Your task to perform on an android device: toggle pop-ups in chrome Image 0: 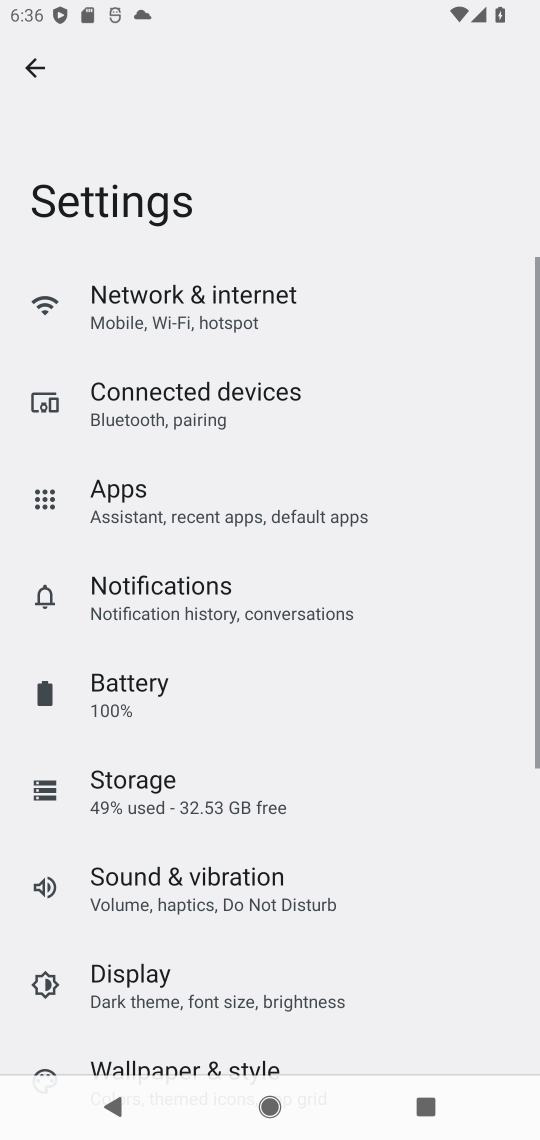
Step 0: press home button
Your task to perform on an android device: toggle pop-ups in chrome Image 1: 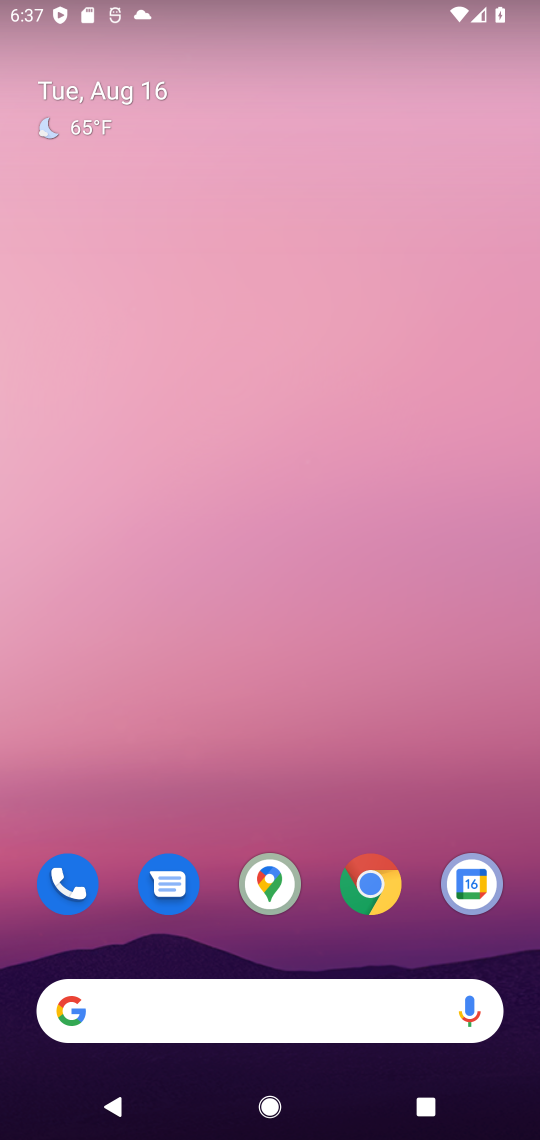
Step 1: click (364, 890)
Your task to perform on an android device: toggle pop-ups in chrome Image 2: 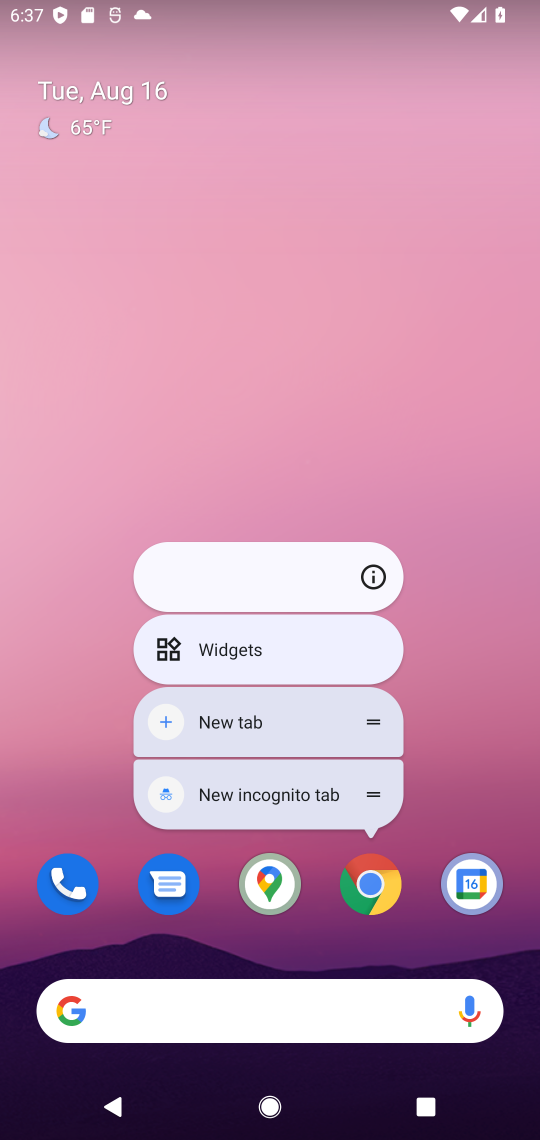
Step 2: click (363, 899)
Your task to perform on an android device: toggle pop-ups in chrome Image 3: 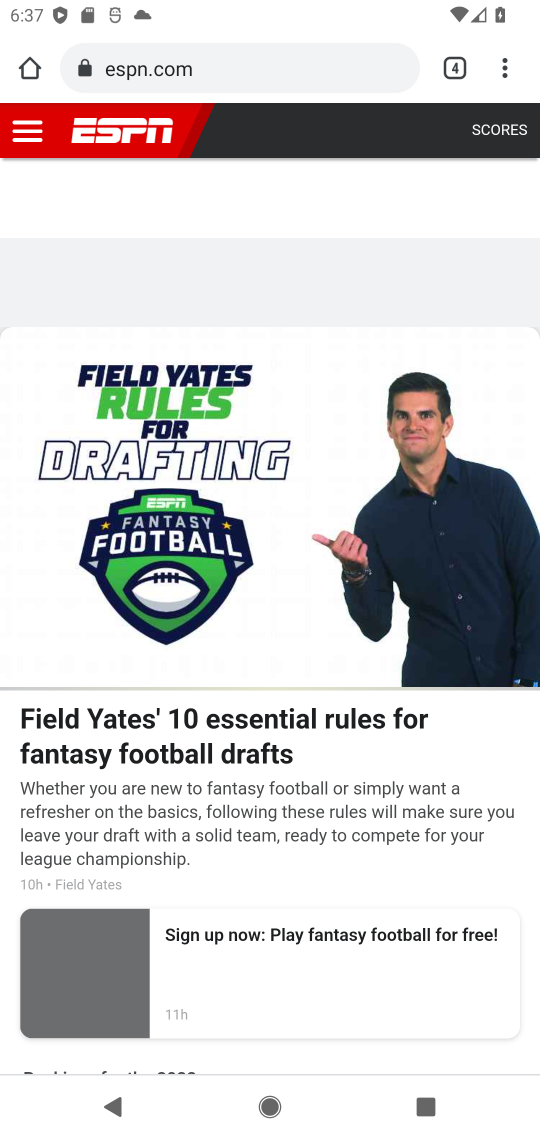
Step 3: drag from (504, 61) to (333, 828)
Your task to perform on an android device: toggle pop-ups in chrome Image 4: 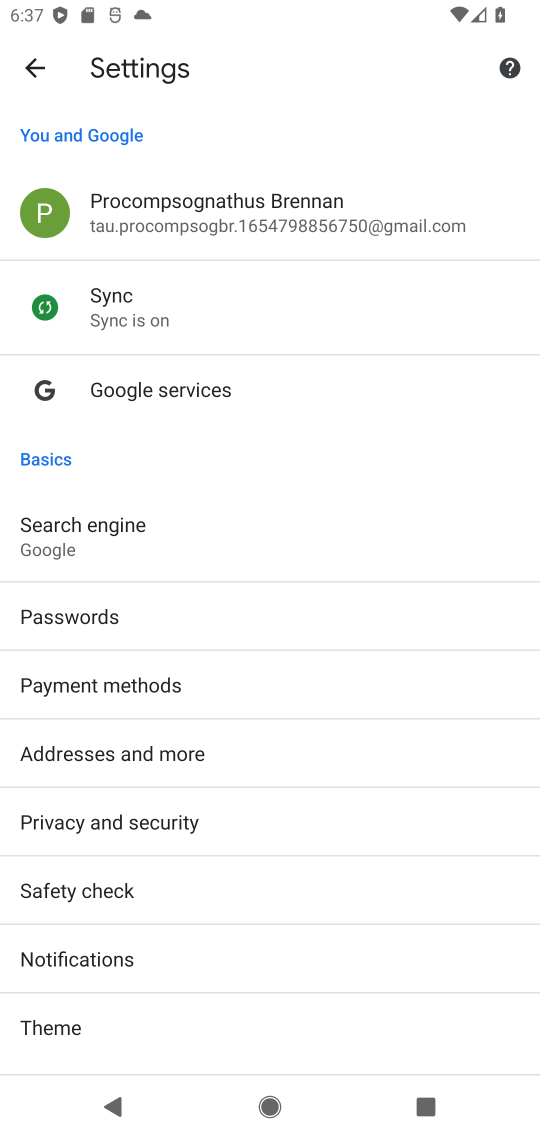
Step 4: drag from (307, 1011) to (315, 204)
Your task to perform on an android device: toggle pop-ups in chrome Image 5: 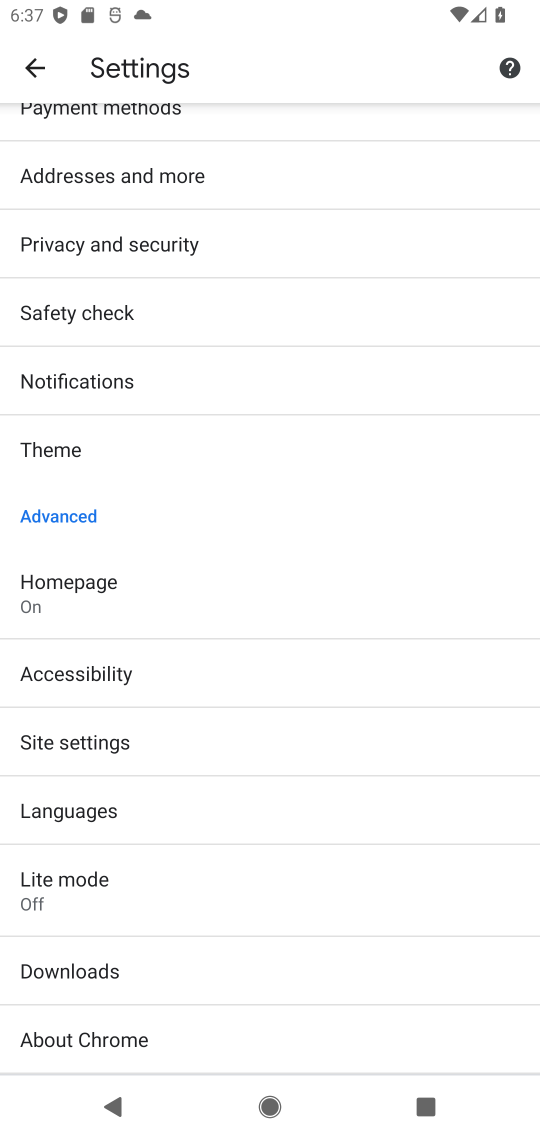
Step 5: click (55, 736)
Your task to perform on an android device: toggle pop-ups in chrome Image 6: 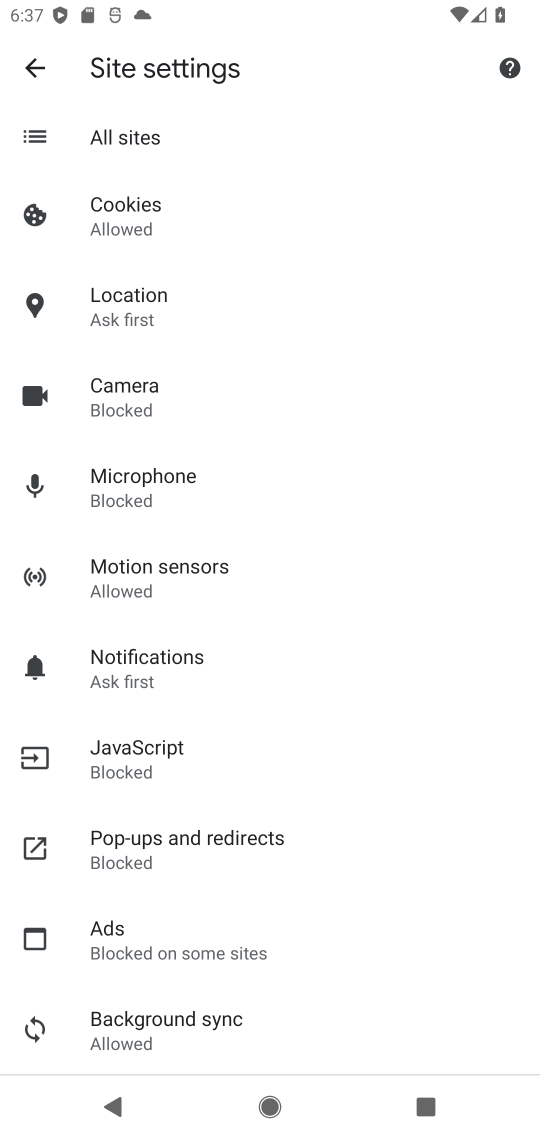
Step 6: click (157, 860)
Your task to perform on an android device: toggle pop-ups in chrome Image 7: 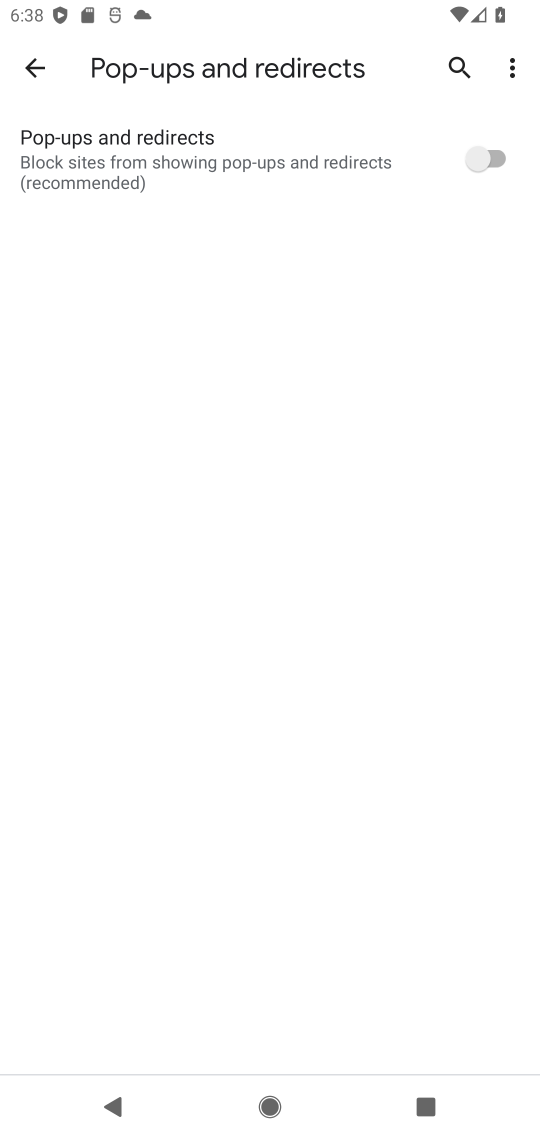
Step 7: click (483, 160)
Your task to perform on an android device: toggle pop-ups in chrome Image 8: 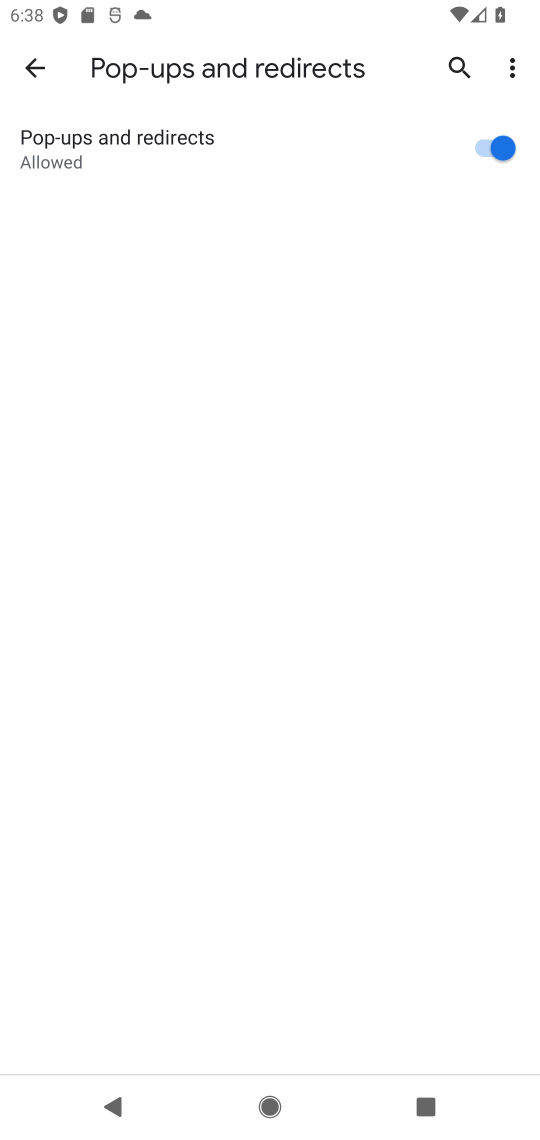
Step 8: task complete